Your task to perform on an android device: empty trash in the gmail app Image 0: 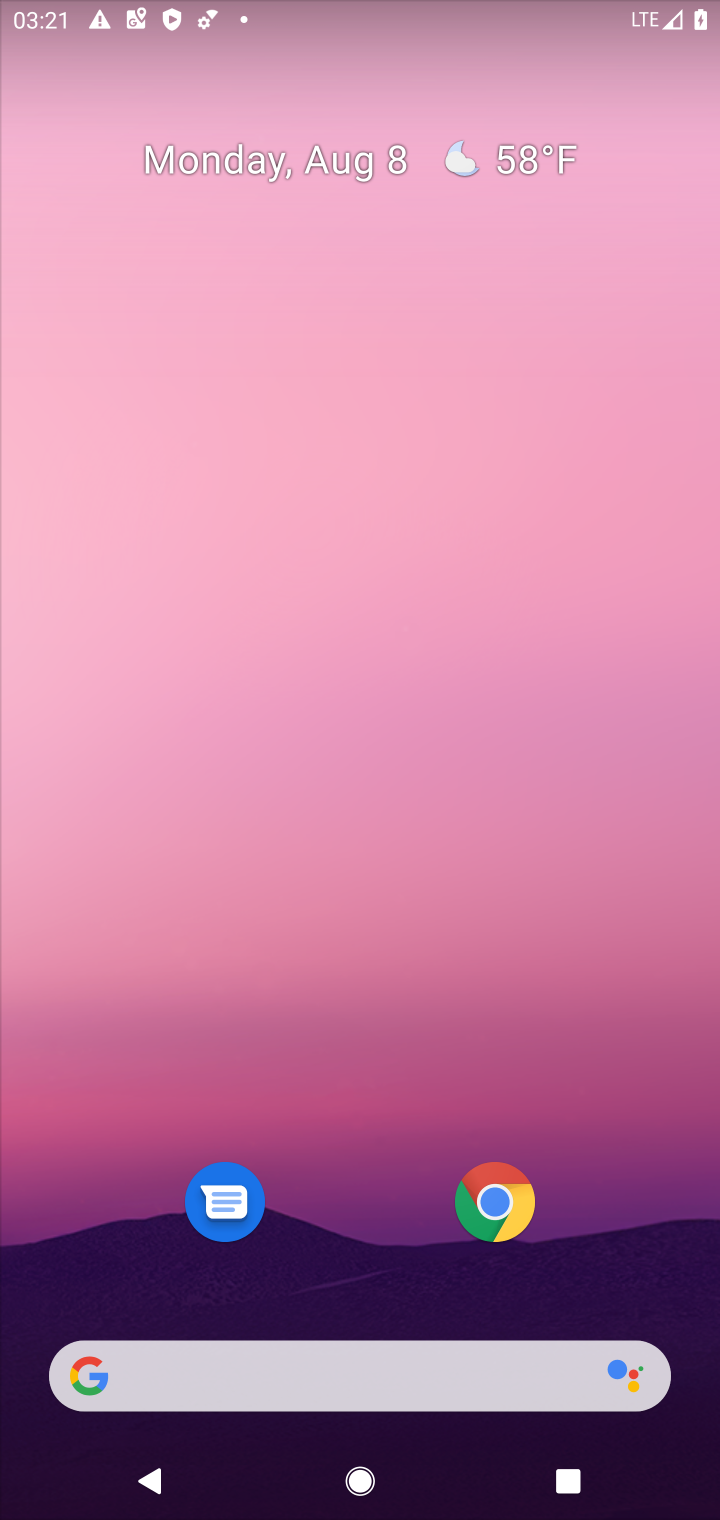
Step 0: drag from (318, 1164) to (378, 189)
Your task to perform on an android device: empty trash in the gmail app Image 1: 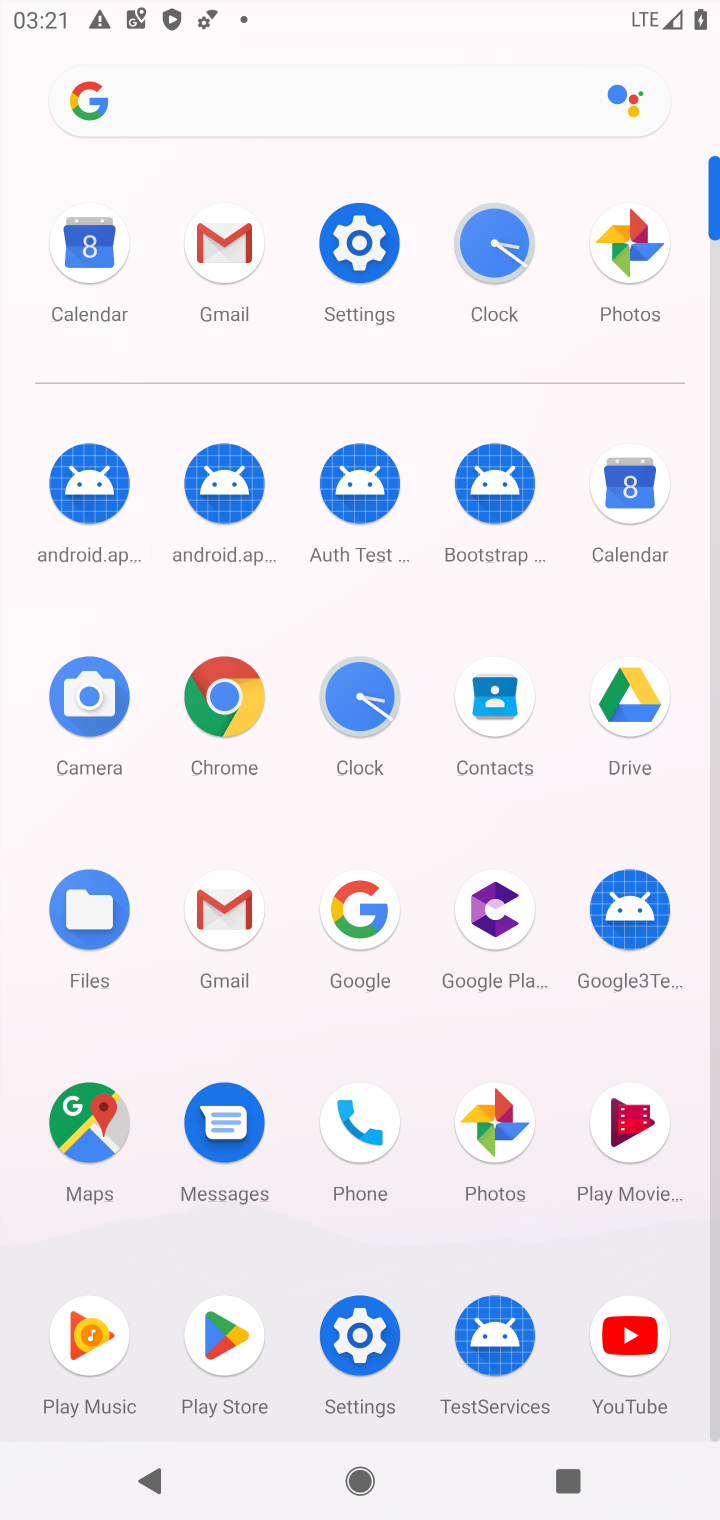
Step 1: click (218, 246)
Your task to perform on an android device: empty trash in the gmail app Image 2: 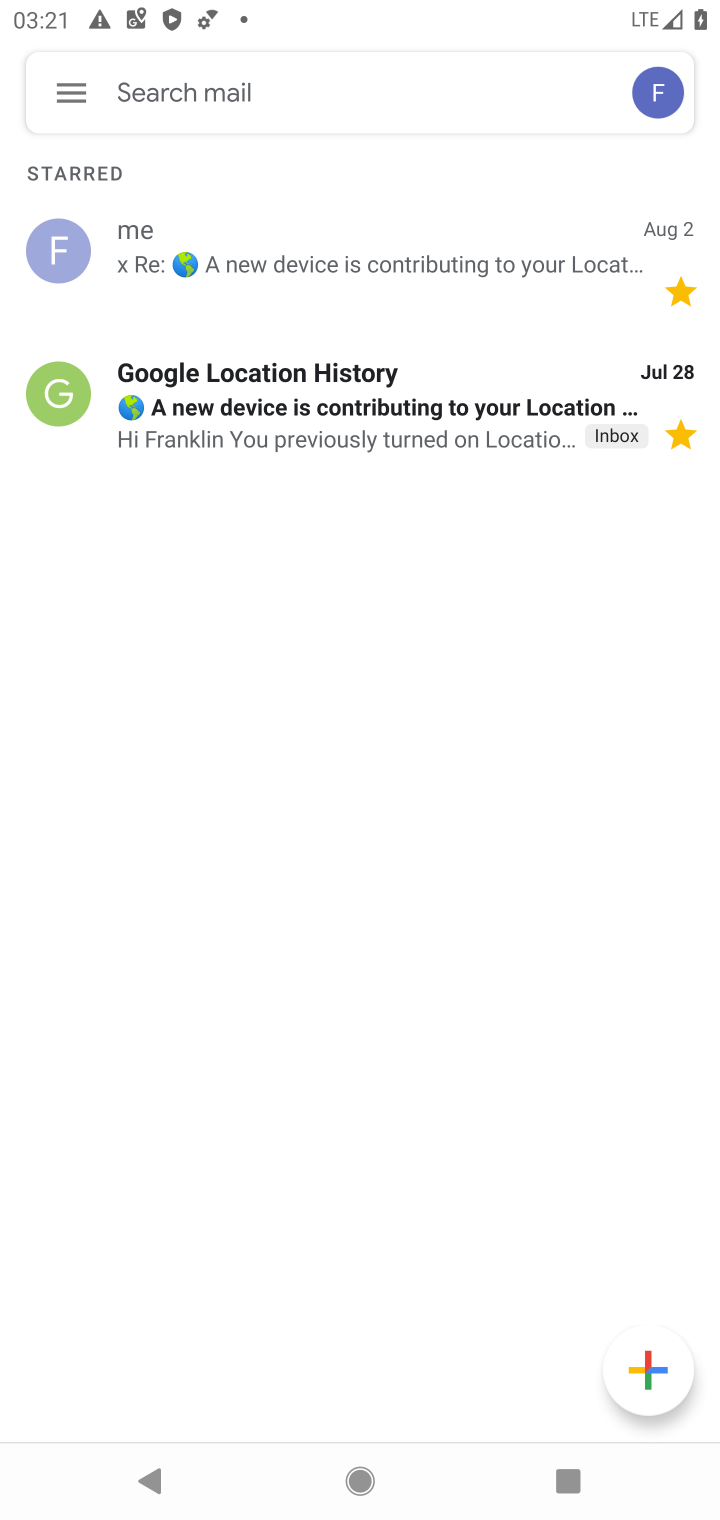
Step 2: click (76, 85)
Your task to perform on an android device: empty trash in the gmail app Image 3: 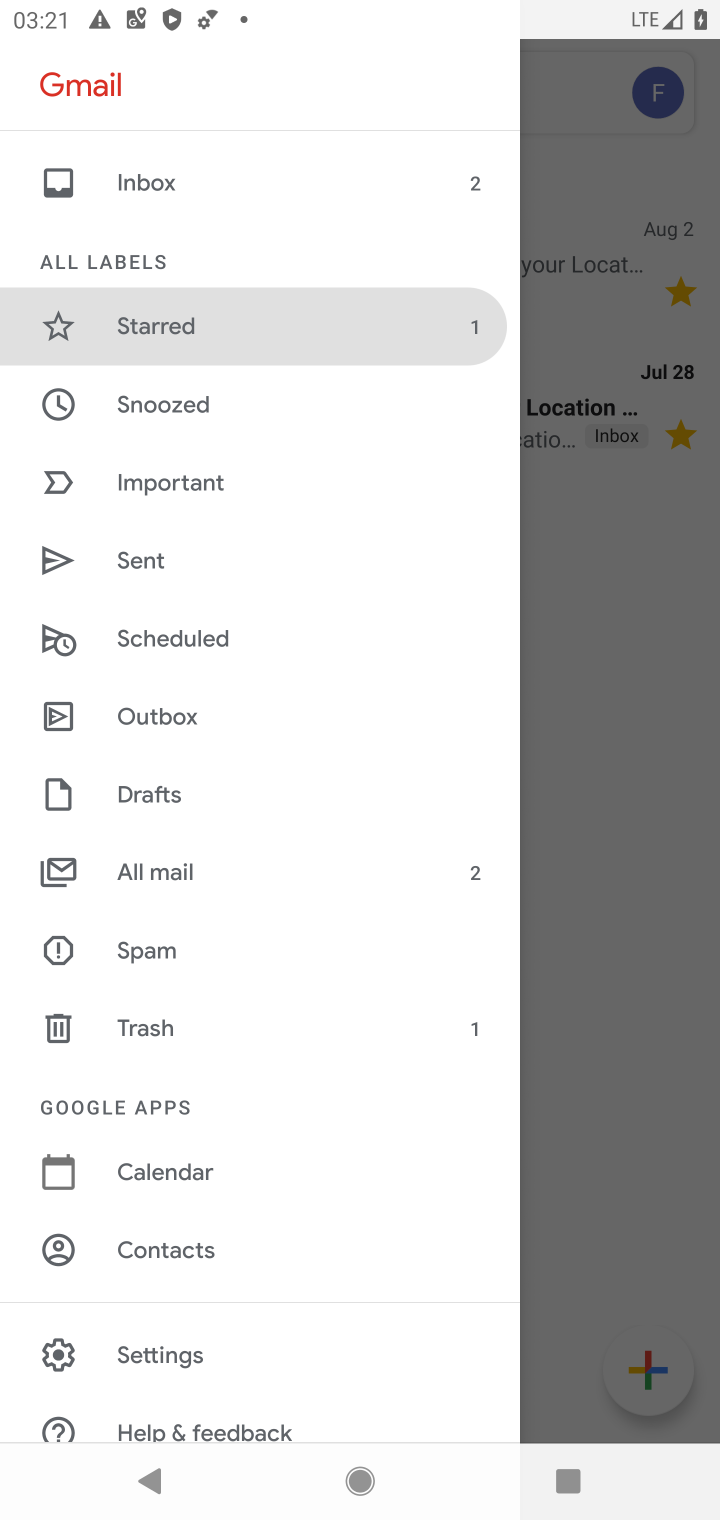
Step 3: click (136, 1008)
Your task to perform on an android device: empty trash in the gmail app Image 4: 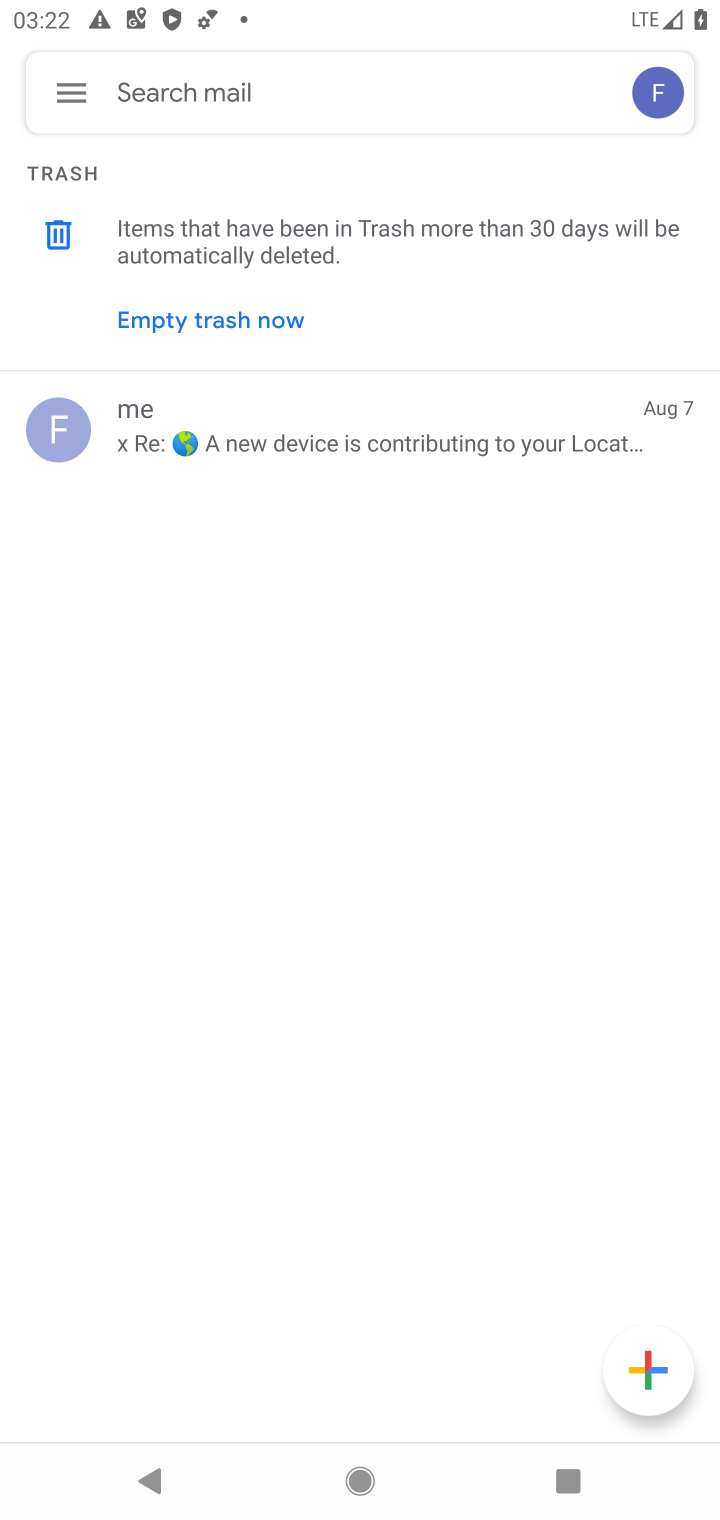
Step 4: click (58, 222)
Your task to perform on an android device: empty trash in the gmail app Image 5: 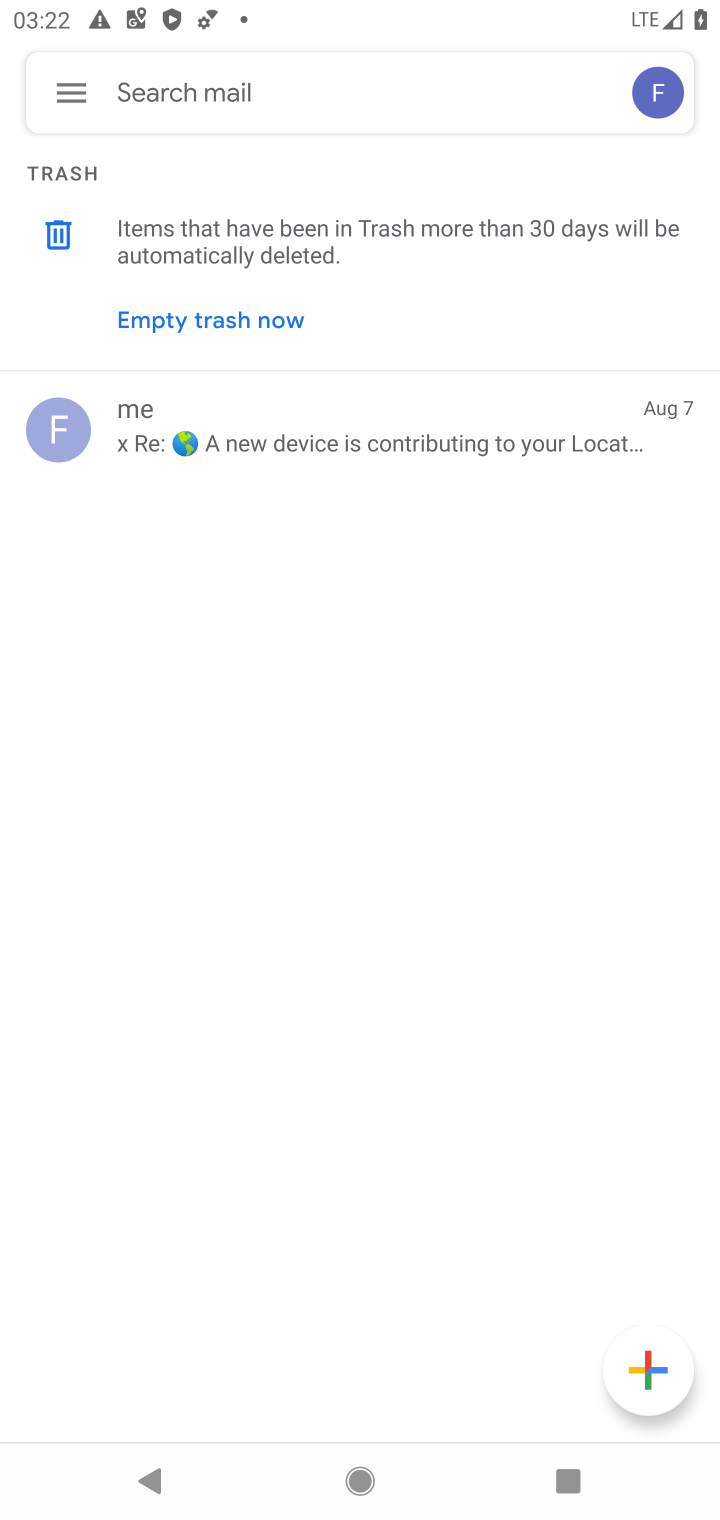
Step 5: click (58, 235)
Your task to perform on an android device: empty trash in the gmail app Image 6: 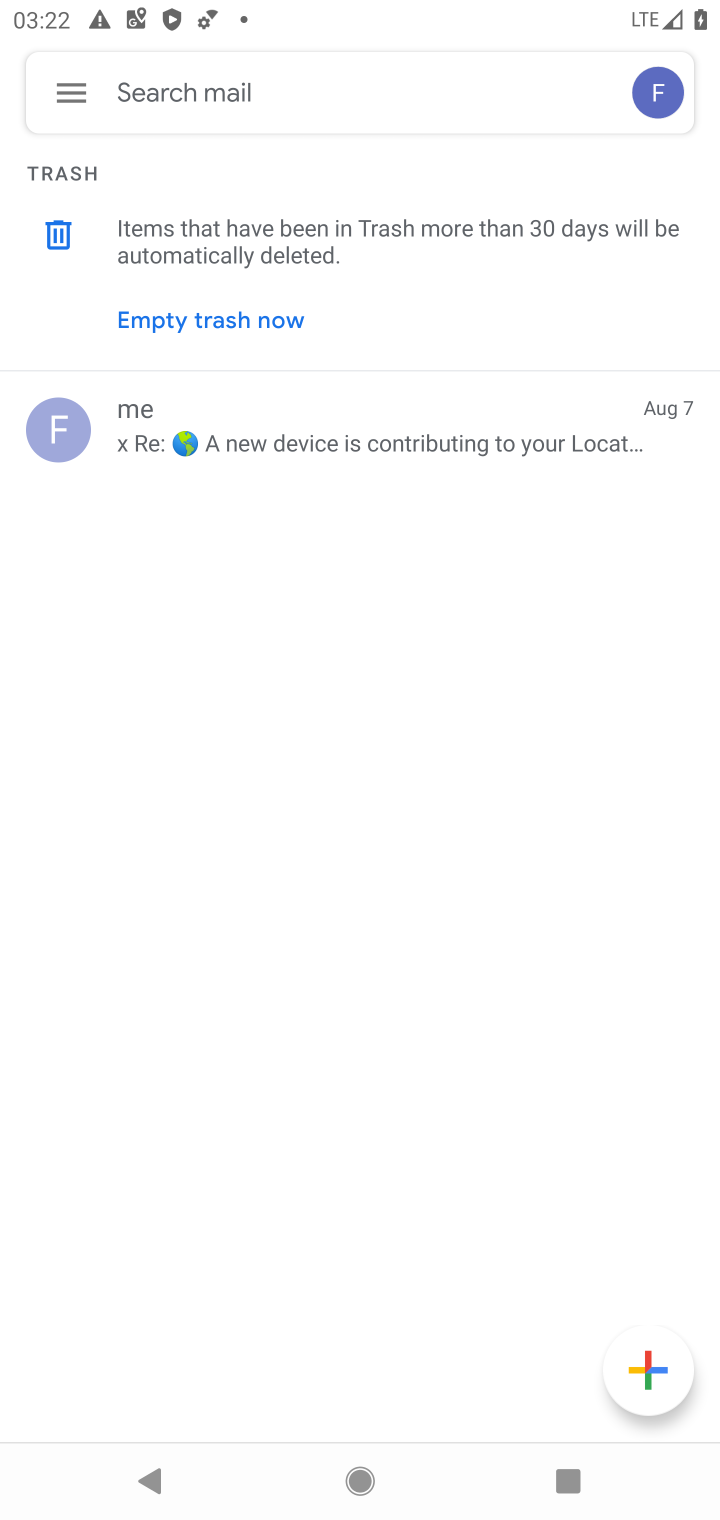
Step 6: click (153, 321)
Your task to perform on an android device: empty trash in the gmail app Image 7: 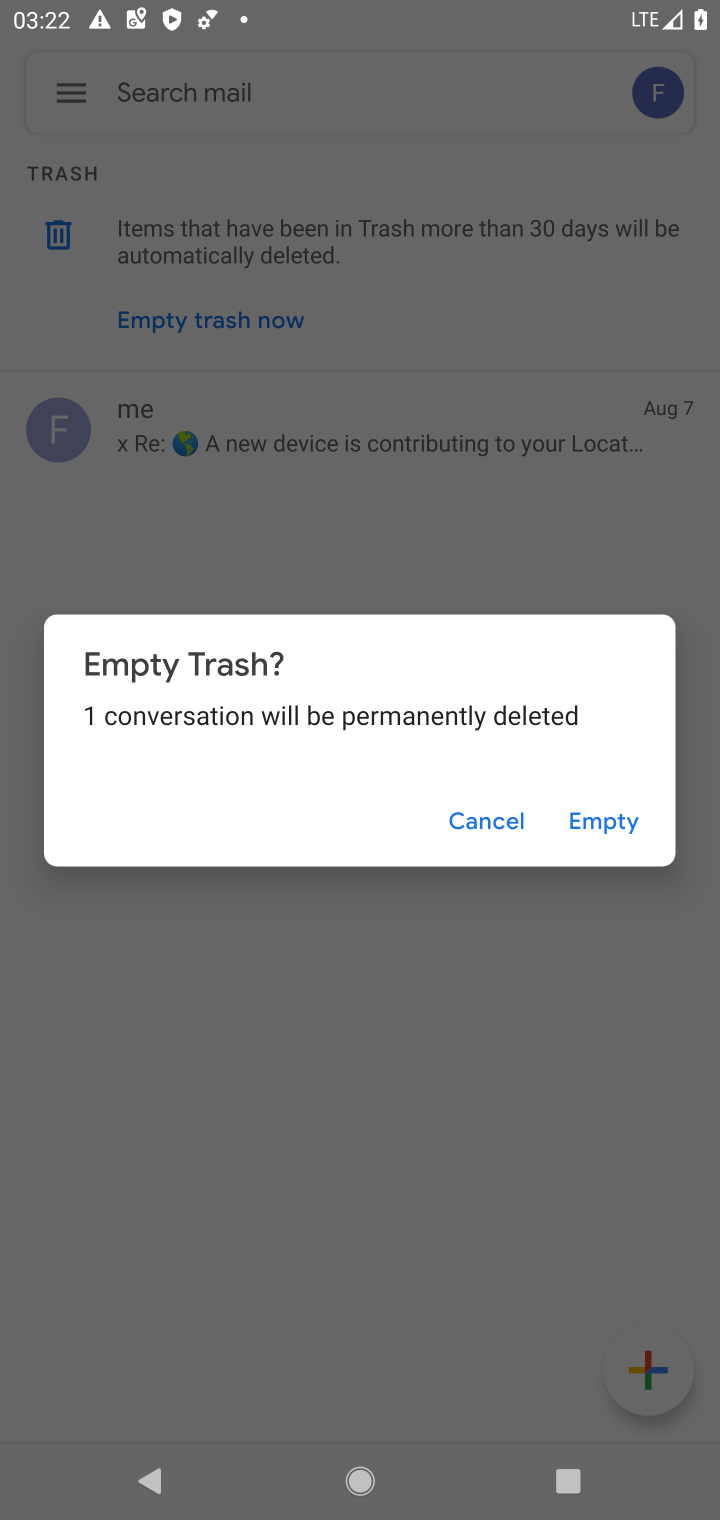
Step 7: click (610, 843)
Your task to perform on an android device: empty trash in the gmail app Image 8: 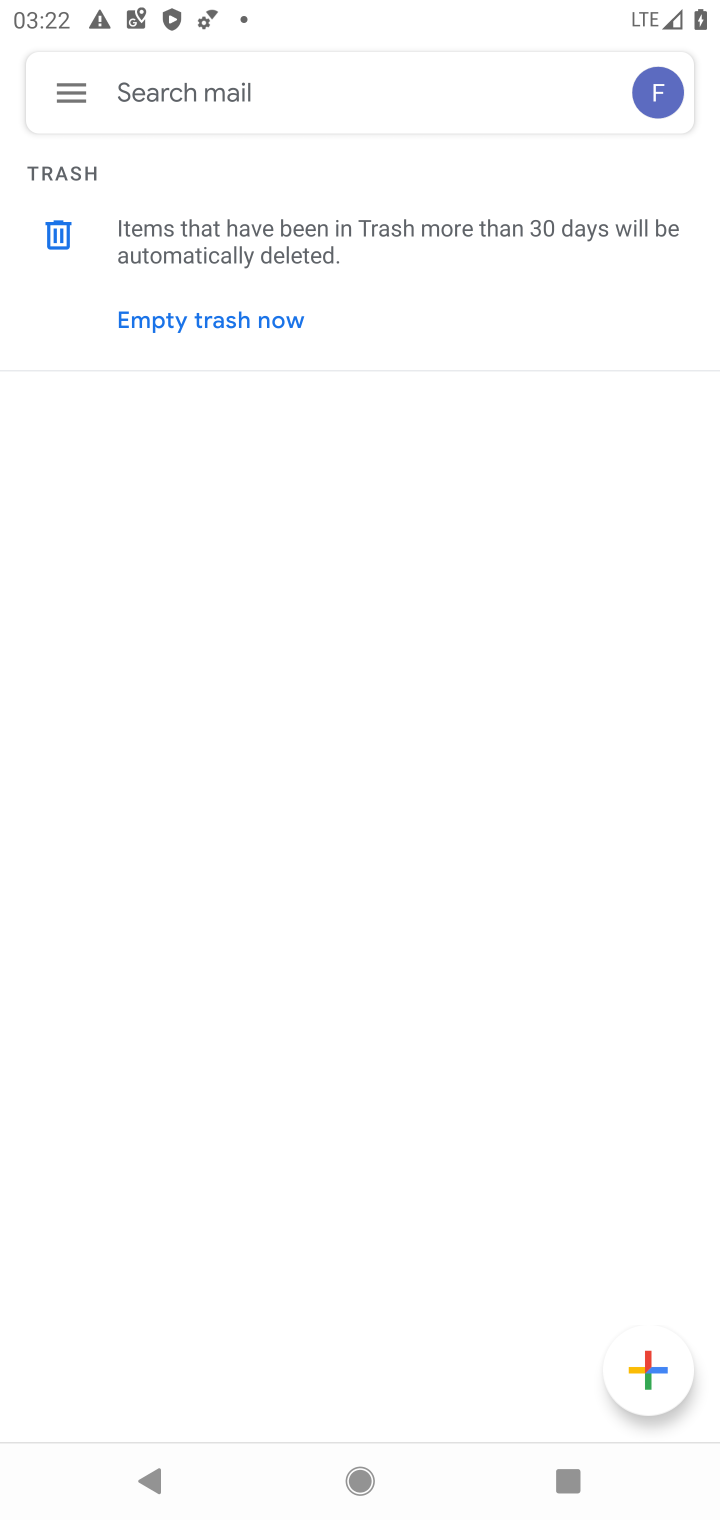
Step 8: task complete